Your task to perform on an android device: Open Google Image 0: 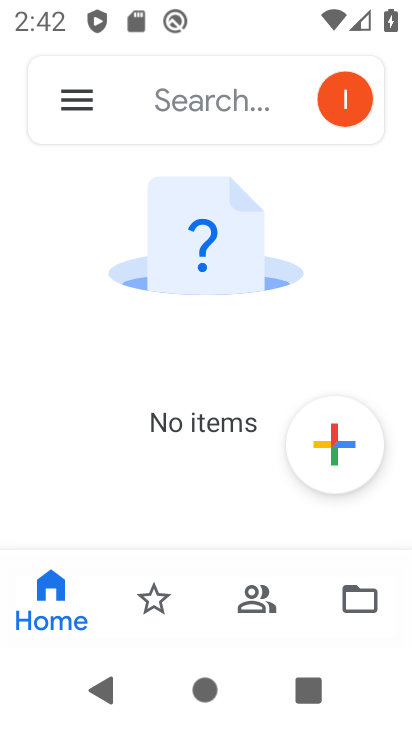
Step 0: press home button
Your task to perform on an android device: Open Google Image 1: 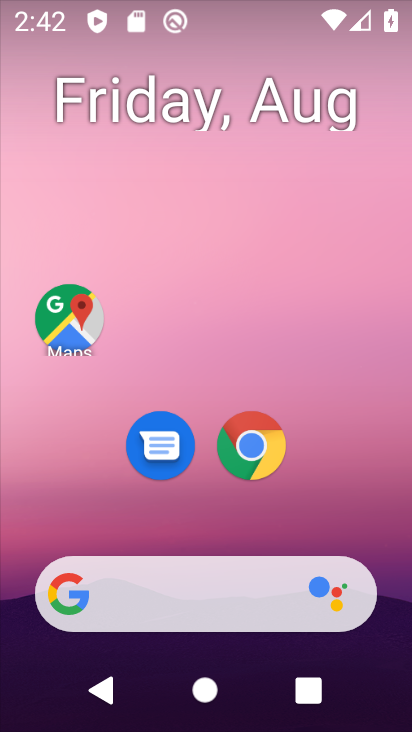
Step 1: drag from (325, 495) to (305, 70)
Your task to perform on an android device: Open Google Image 2: 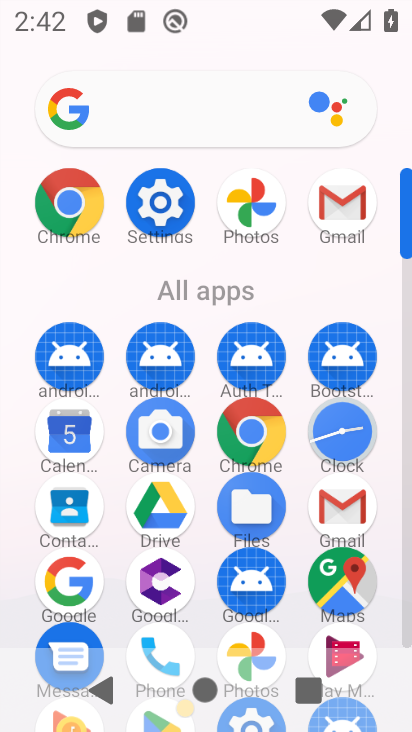
Step 2: click (65, 596)
Your task to perform on an android device: Open Google Image 3: 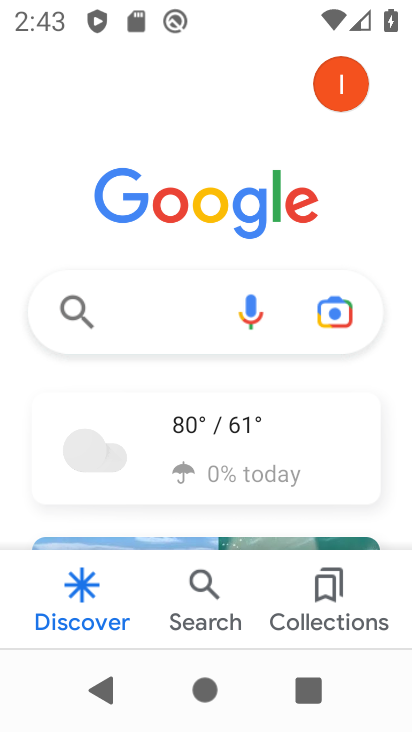
Step 3: task complete